Your task to perform on an android device: turn on translation in the chrome app Image 0: 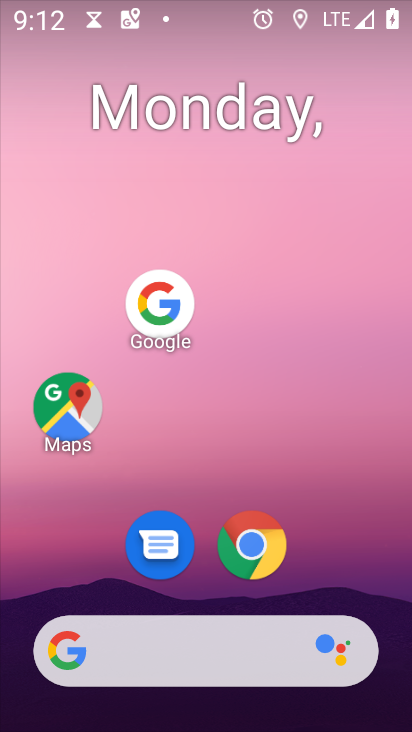
Step 0: press home button
Your task to perform on an android device: turn on translation in the chrome app Image 1: 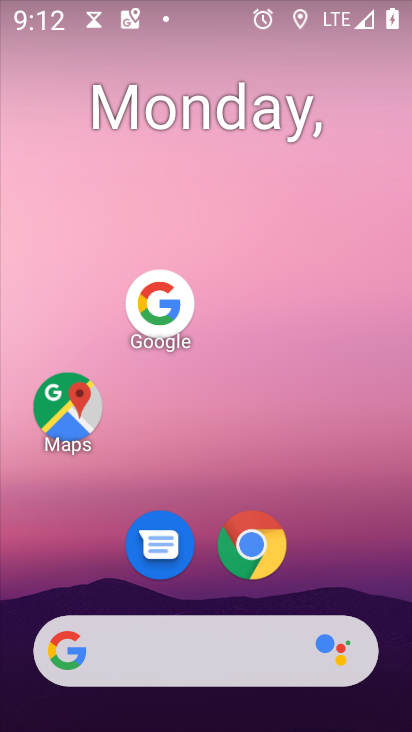
Step 1: click (251, 552)
Your task to perform on an android device: turn on translation in the chrome app Image 2: 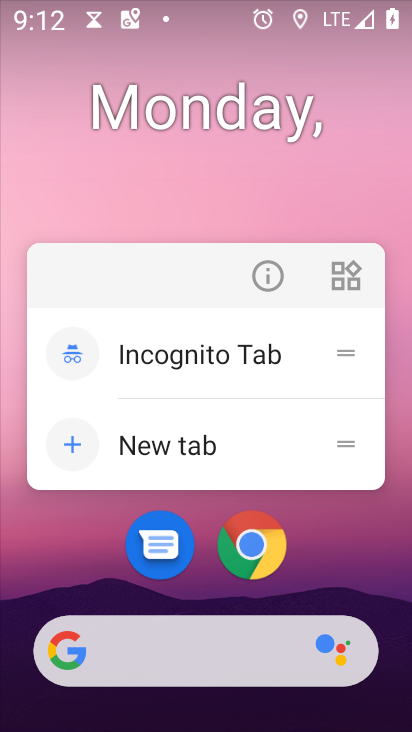
Step 2: click (253, 560)
Your task to perform on an android device: turn on translation in the chrome app Image 3: 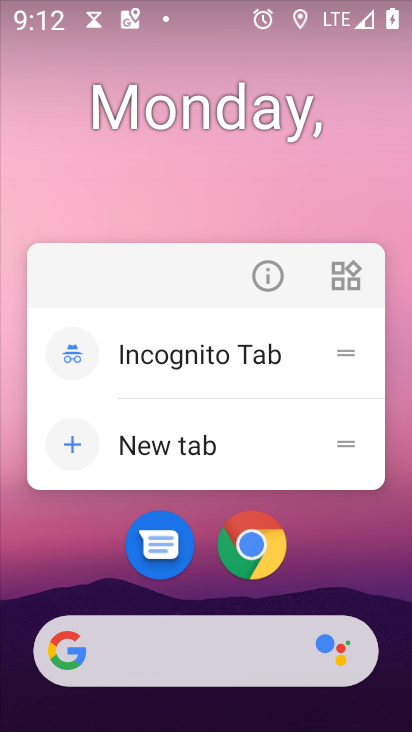
Step 3: click (253, 547)
Your task to perform on an android device: turn on translation in the chrome app Image 4: 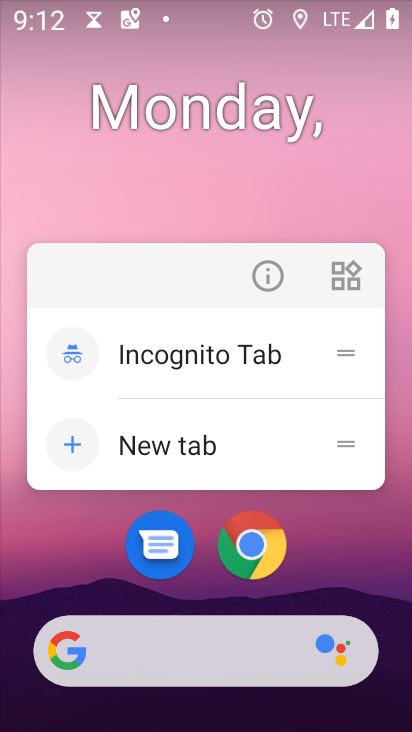
Step 4: click (253, 548)
Your task to perform on an android device: turn on translation in the chrome app Image 5: 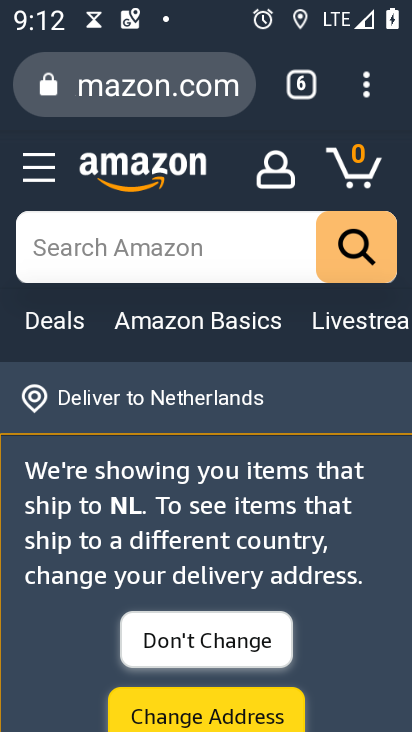
Step 5: drag from (368, 93) to (222, 613)
Your task to perform on an android device: turn on translation in the chrome app Image 6: 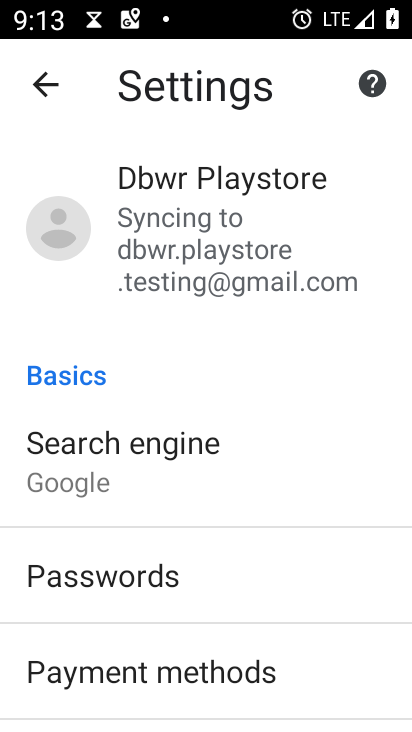
Step 6: drag from (251, 578) to (354, 222)
Your task to perform on an android device: turn on translation in the chrome app Image 7: 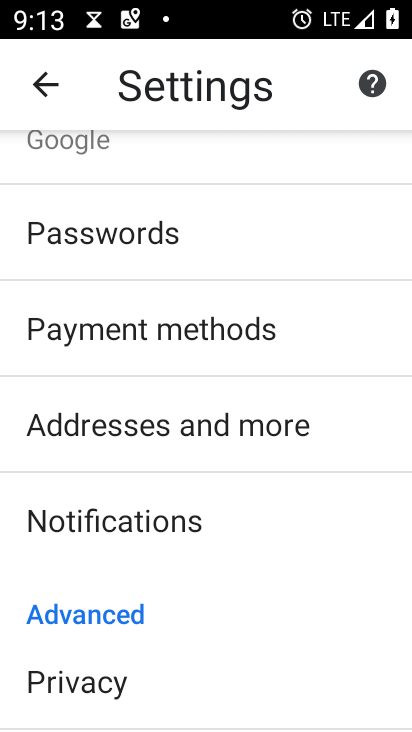
Step 7: drag from (179, 642) to (288, 181)
Your task to perform on an android device: turn on translation in the chrome app Image 8: 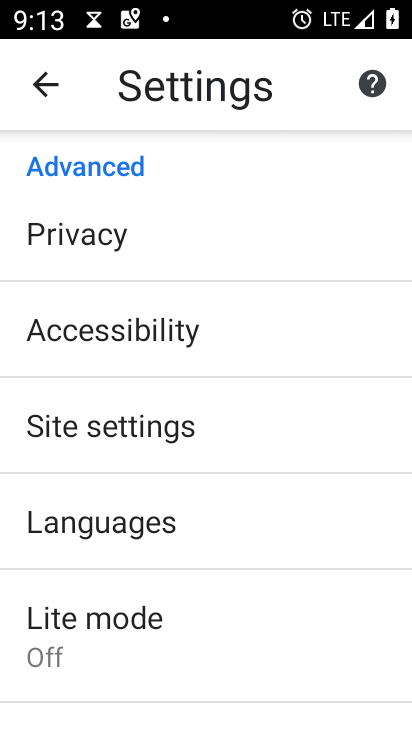
Step 8: click (110, 510)
Your task to perform on an android device: turn on translation in the chrome app Image 9: 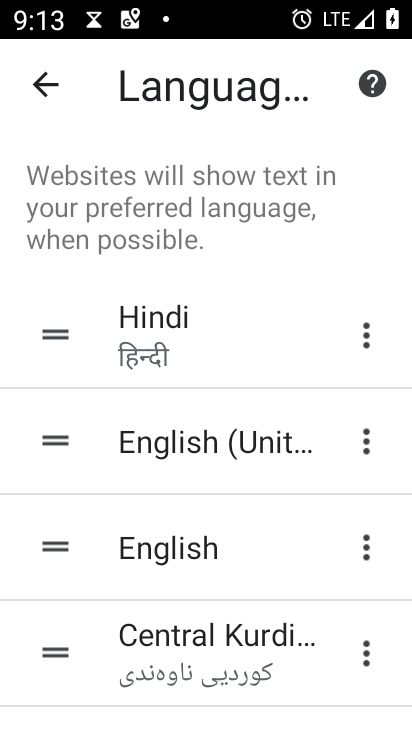
Step 9: task complete